Your task to perform on an android device: Open privacy settings Image 0: 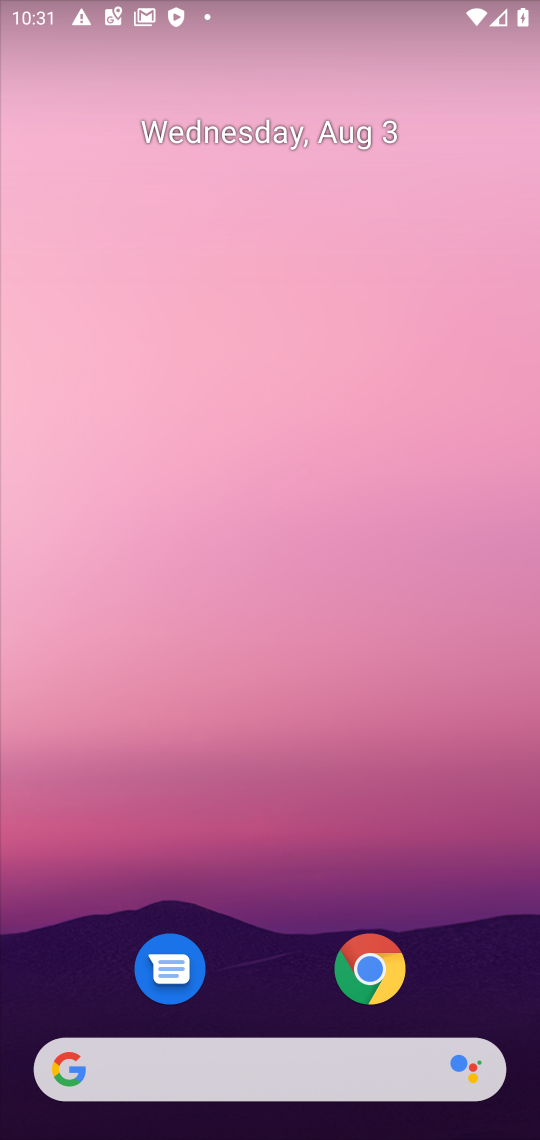
Step 0: drag from (246, 299) to (244, 115)
Your task to perform on an android device: Open privacy settings Image 1: 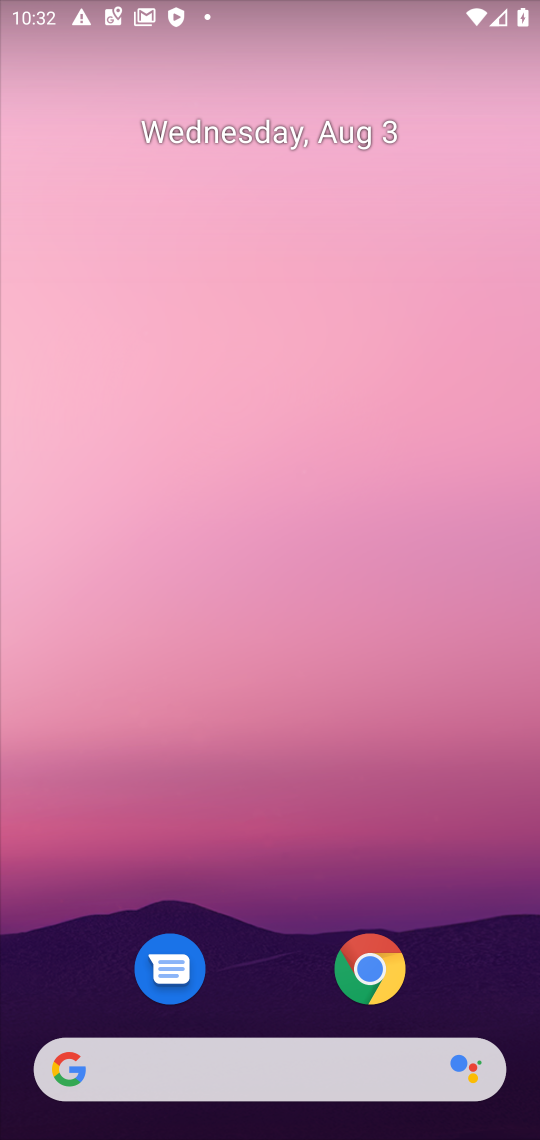
Step 1: drag from (302, 1007) to (269, 239)
Your task to perform on an android device: Open privacy settings Image 2: 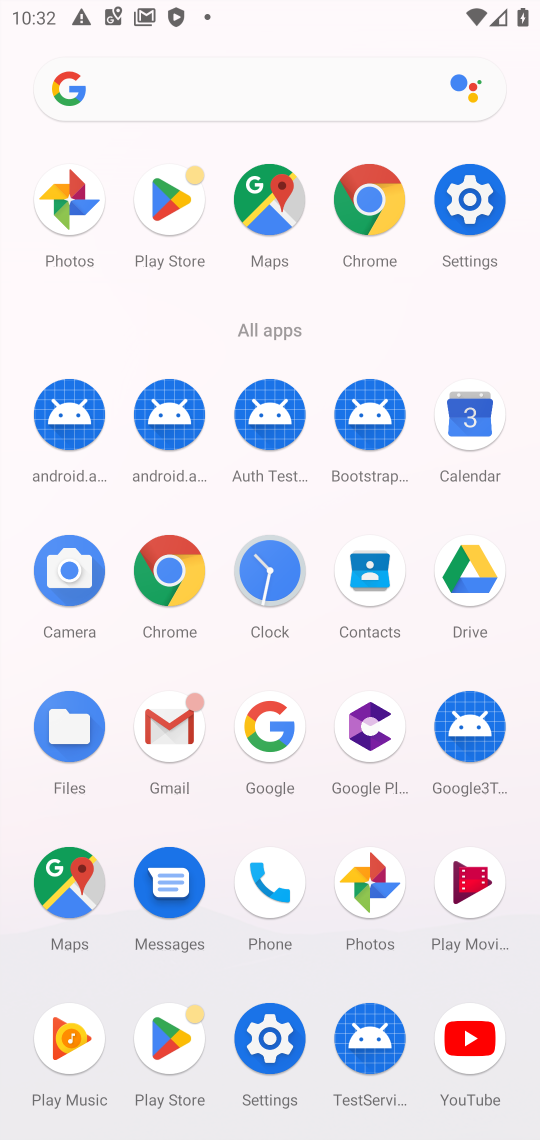
Step 2: click (275, 1030)
Your task to perform on an android device: Open privacy settings Image 3: 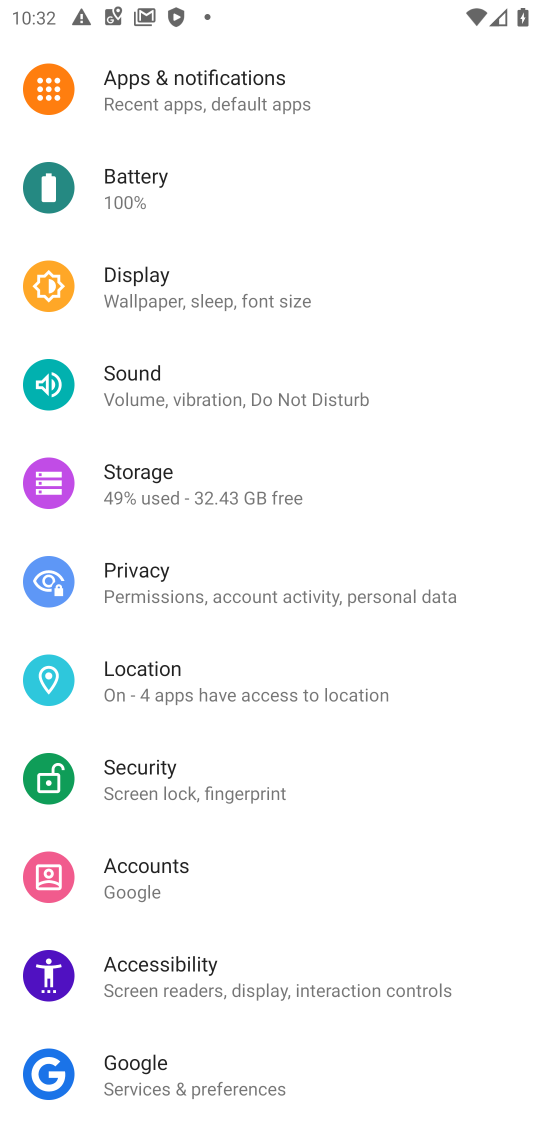
Step 3: click (142, 600)
Your task to perform on an android device: Open privacy settings Image 4: 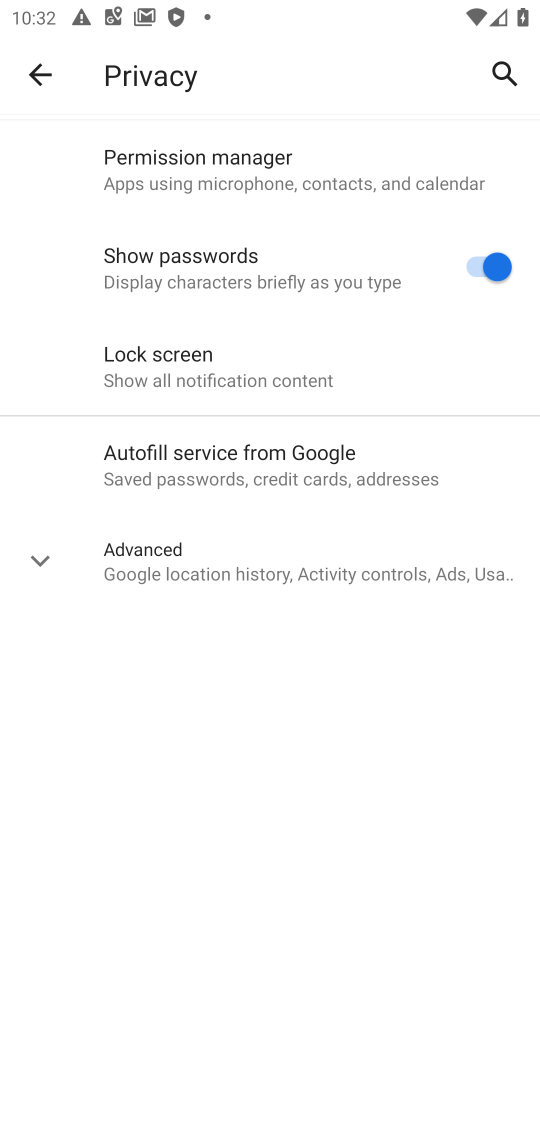
Step 4: click (186, 581)
Your task to perform on an android device: Open privacy settings Image 5: 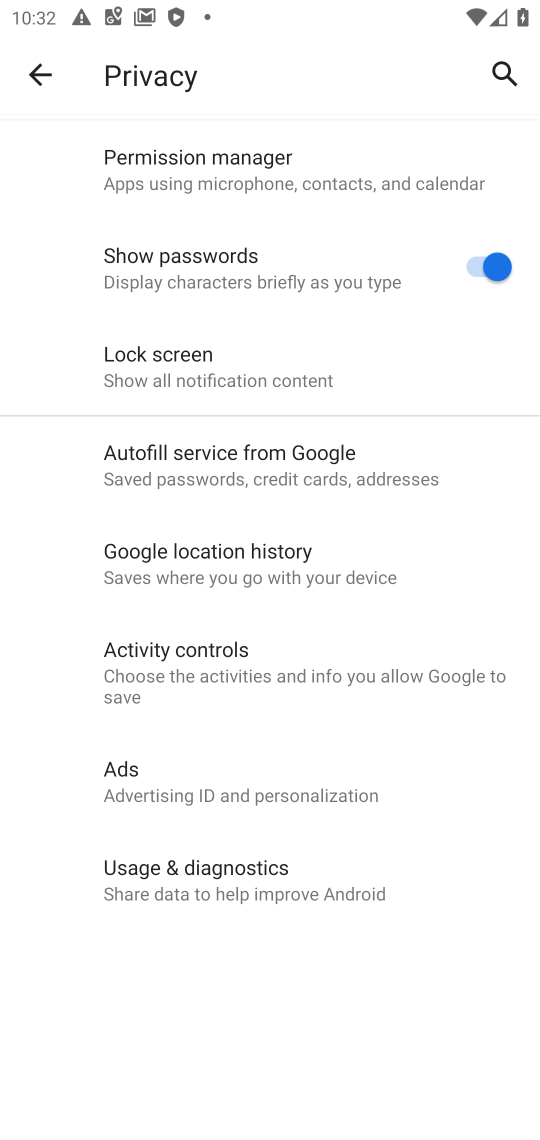
Step 5: task complete